Your task to perform on an android device: Open Google Image 0: 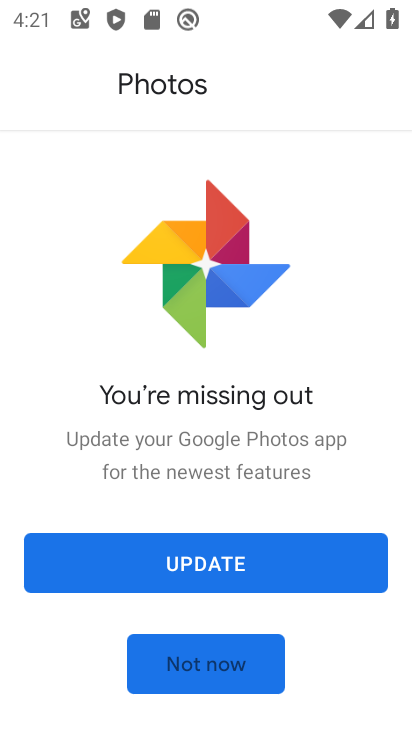
Step 0: press home button
Your task to perform on an android device: Open Google Image 1: 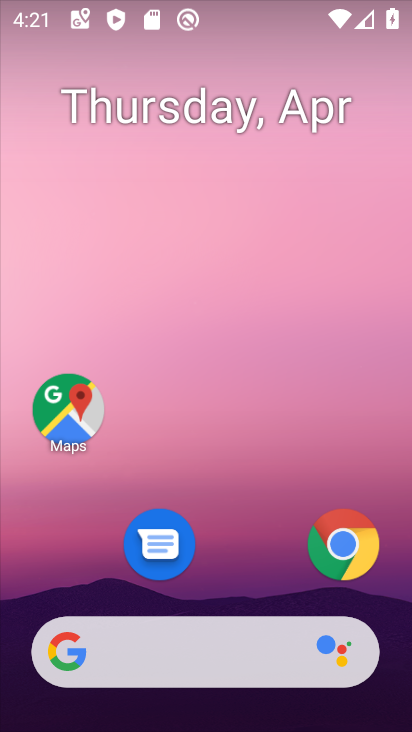
Step 1: drag from (274, 608) to (391, 128)
Your task to perform on an android device: Open Google Image 2: 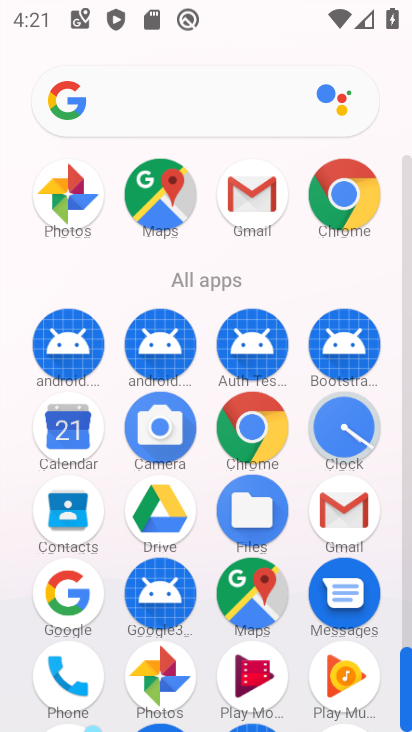
Step 2: click (78, 602)
Your task to perform on an android device: Open Google Image 3: 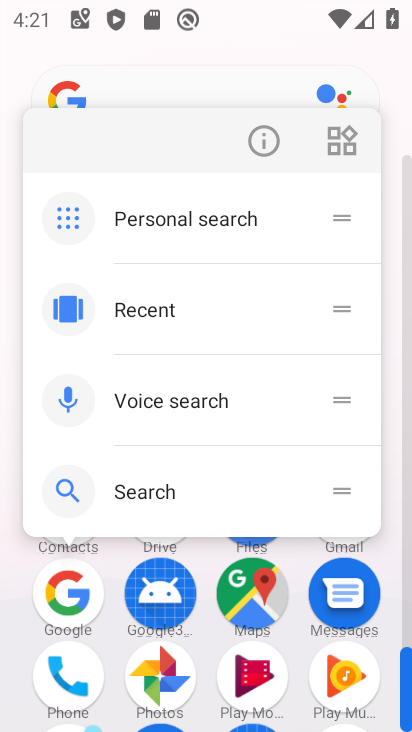
Step 3: click (58, 596)
Your task to perform on an android device: Open Google Image 4: 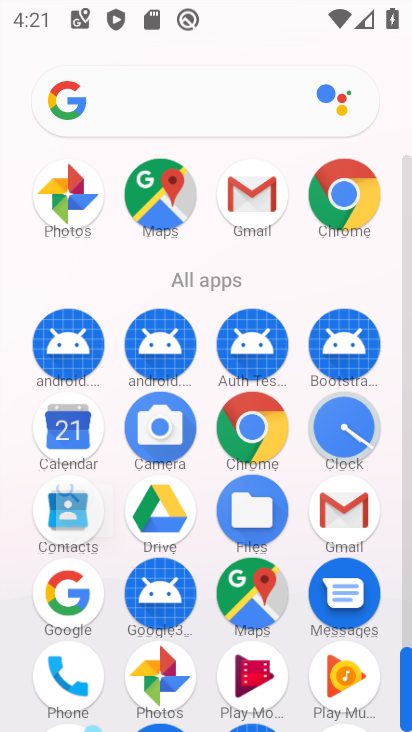
Step 4: click (58, 596)
Your task to perform on an android device: Open Google Image 5: 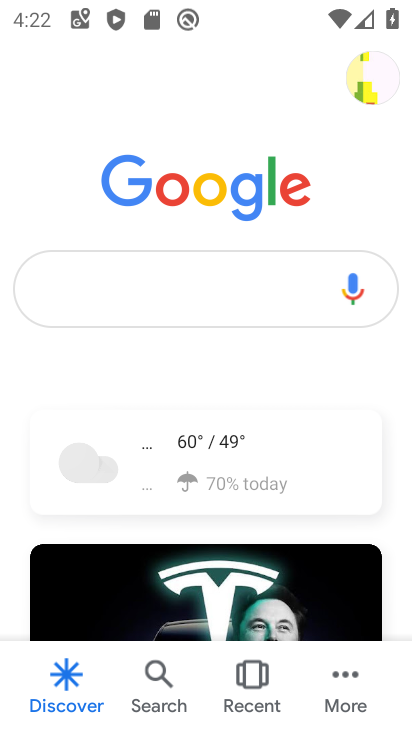
Step 5: task complete